Your task to perform on an android device: see creations saved in the google photos Image 0: 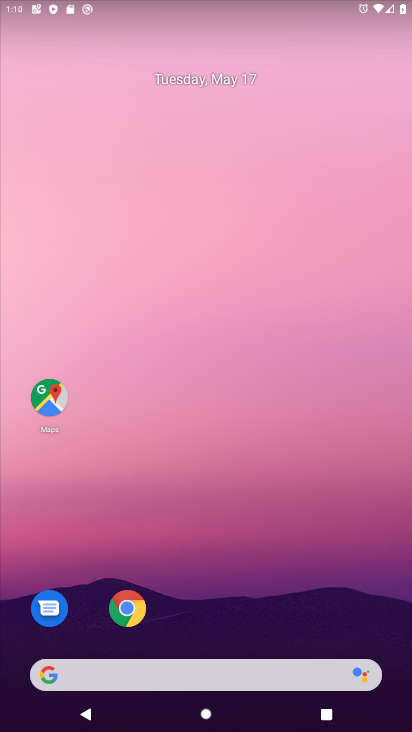
Step 0: drag from (194, 646) to (193, 442)
Your task to perform on an android device: see creations saved in the google photos Image 1: 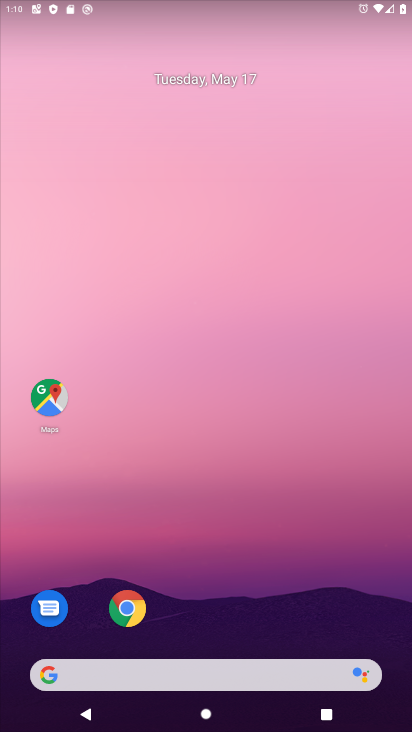
Step 1: drag from (199, 636) to (273, 68)
Your task to perform on an android device: see creations saved in the google photos Image 2: 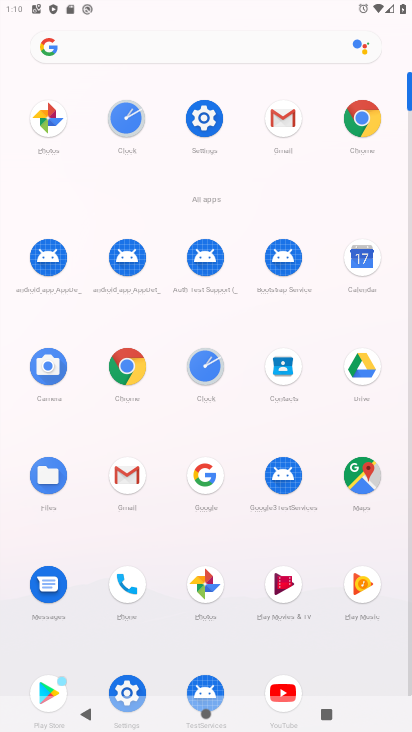
Step 2: click (202, 588)
Your task to perform on an android device: see creations saved in the google photos Image 3: 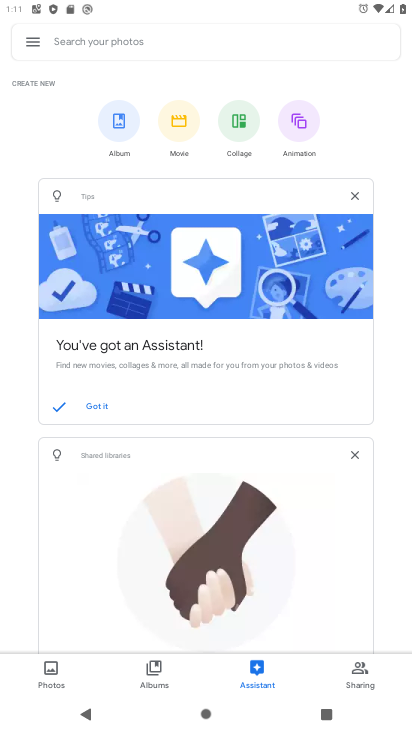
Step 3: click (159, 684)
Your task to perform on an android device: see creations saved in the google photos Image 4: 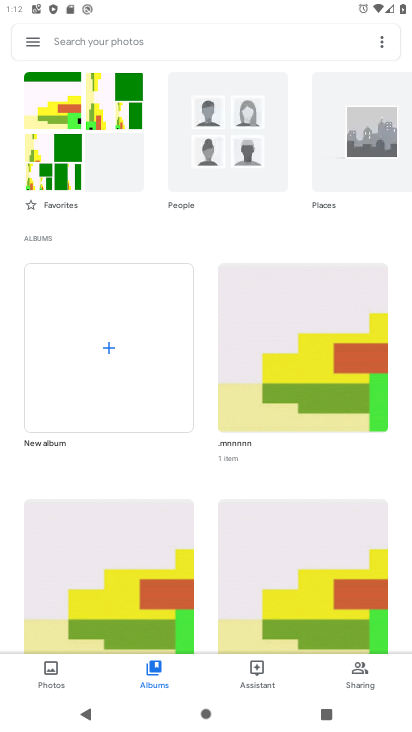
Step 4: task complete